Your task to perform on an android device: Open my contact list Image 0: 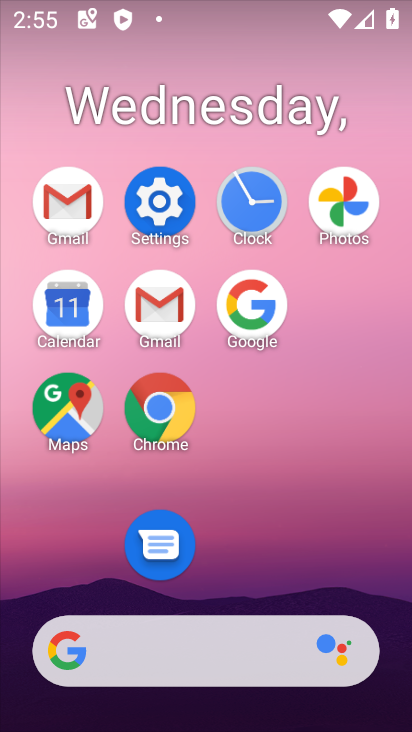
Step 0: drag from (304, 553) to (263, 51)
Your task to perform on an android device: Open my contact list Image 1: 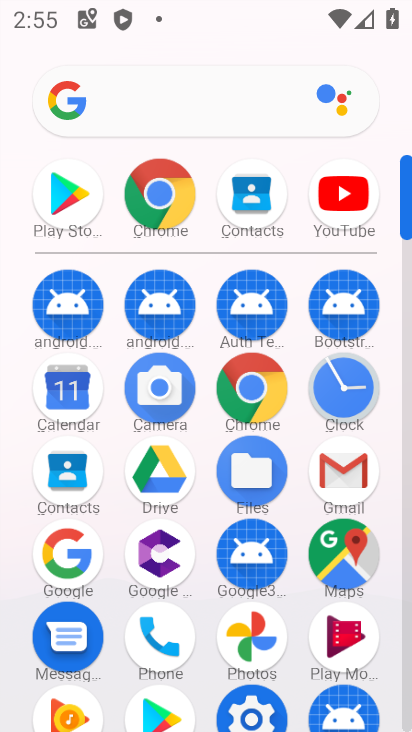
Step 1: click (57, 476)
Your task to perform on an android device: Open my contact list Image 2: 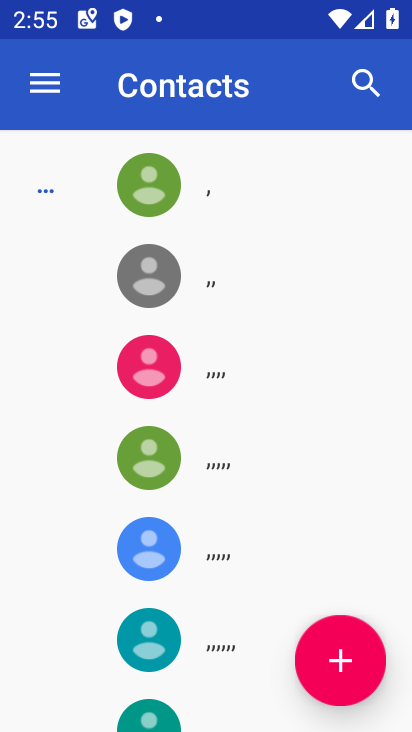
Step 2: task complete